Your task to perform on an android device: turn off translation in the chrome app Image 0: 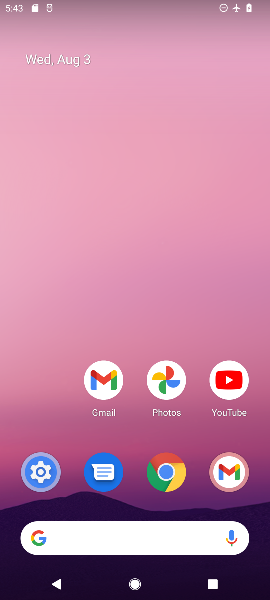
Step 0: drag from (202, 499) to (129, 9)
Your task to perform on an android device: turn off translation in the chrome app Image 1: 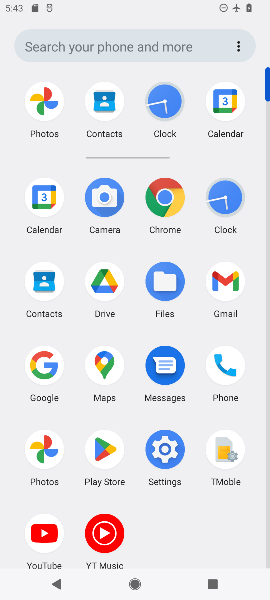
Step 1: click (167, 199)
Your task to perform on an android device: turn off translation in the chrome app Image 2: 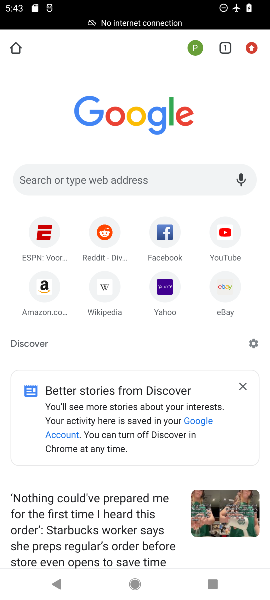
Step 2: click (253, 49)
Your task to perform on an android device: turn off translation in the chrome app Image 3: 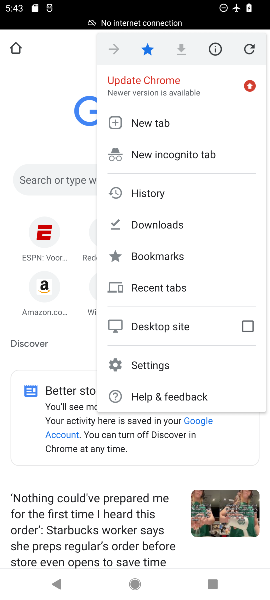
Step 3: click (151, 364)
Your task to perform on an android device: turn off translation in the chrome app Image 4: 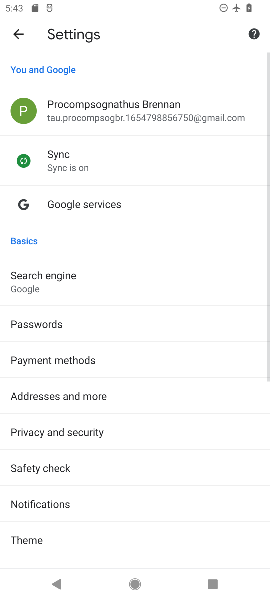
Step 4: drag from (51, 507) to (64, 185)
Your task to perform on an android device: turn off translation in the chrome app Image 5: 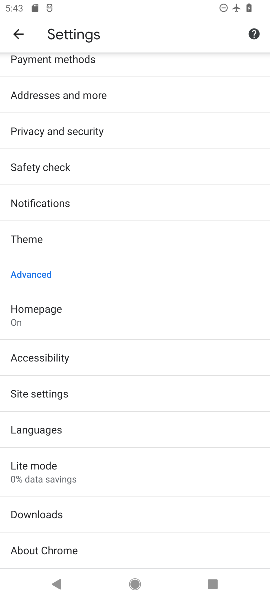
Step 5: click (49, 432)
Your task to perform on an android device: turn off translation in the chrome app Image 6: 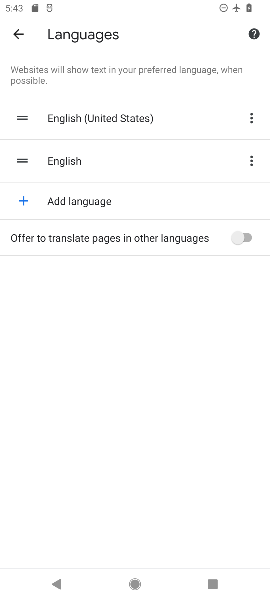
Step 6: task complete